Your task to perform on an android device: Turn on the flashlight Image 0: 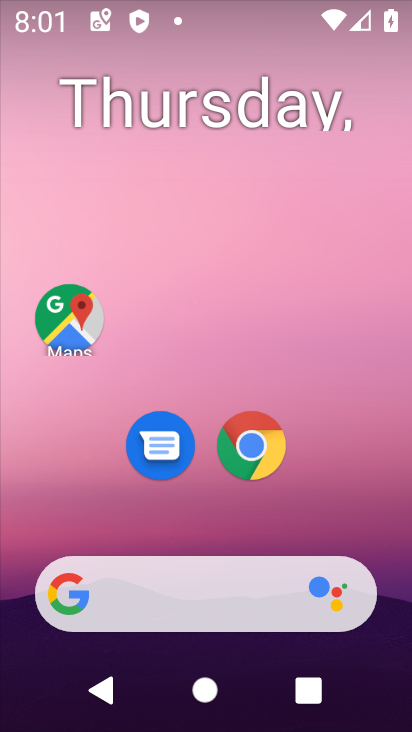
Step 0: drag from (341, 492) to (342, 192)
Your task to perform on an android device: Turn on the flashlight Image 1: 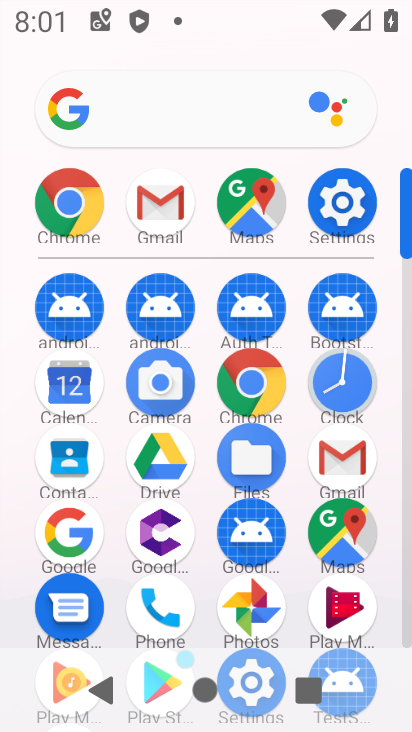
Step 1: click (345, 236)
Your task to perform on an android device: Turn on the flashlight Image 2: 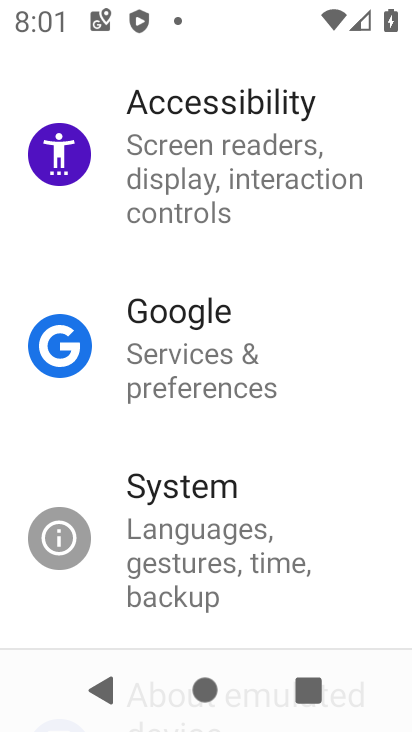
Step 2: drag from (320, 245) to (314, 506)
Your task to perform on an android device: Turn on the flashlight Image 3: 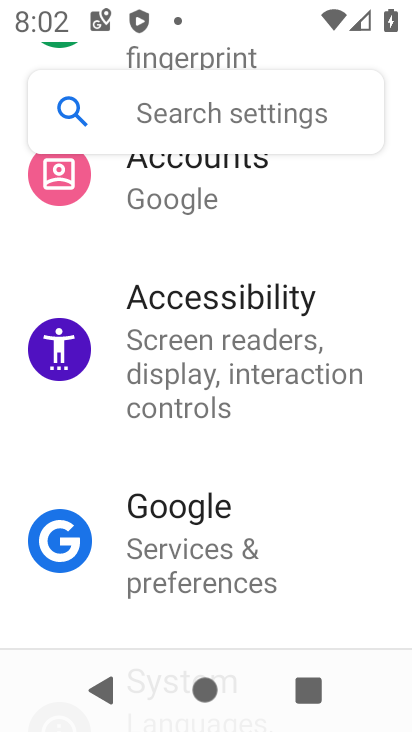
Step 3: click (257, 108)
Your task to perform on an android device: Turn on the flashlight Image 4: 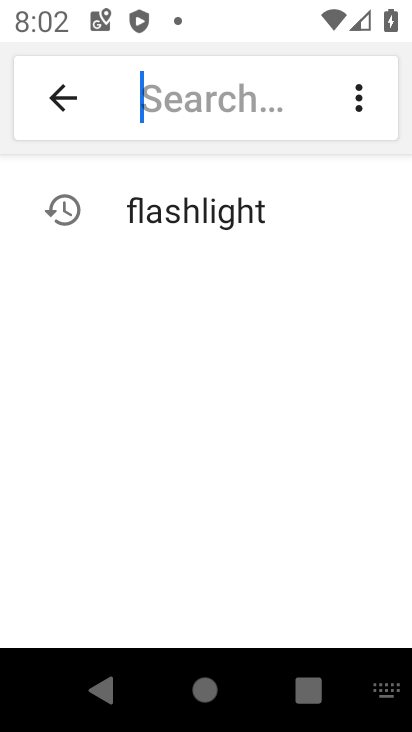
Step 4: click (230, 207)
Your task to perform on an android device: Turn on the flashlight Image 5: 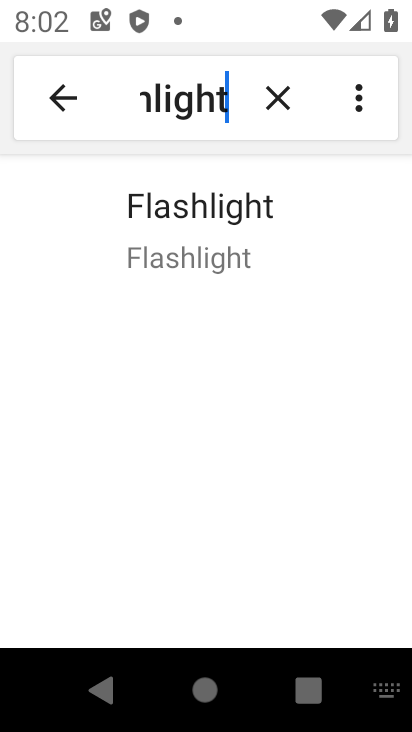
Step 5: task complete